Your task to perform on an android device: change the clock display to digital Image 0: 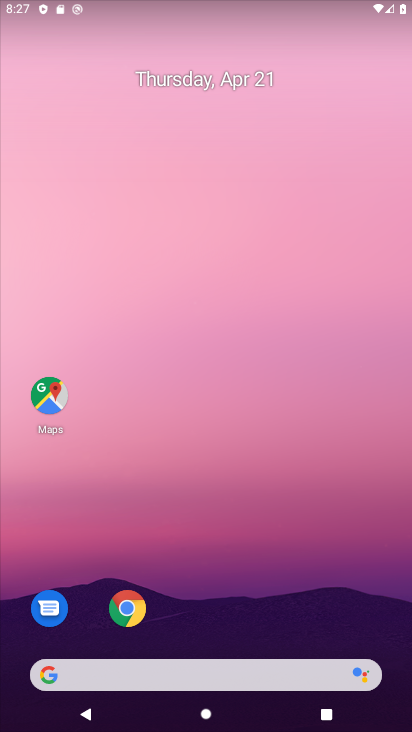
Step 0: drag from (255, 580) to (280, 241)
Your task to perform on an android device: change the clock display to digital Image 1: 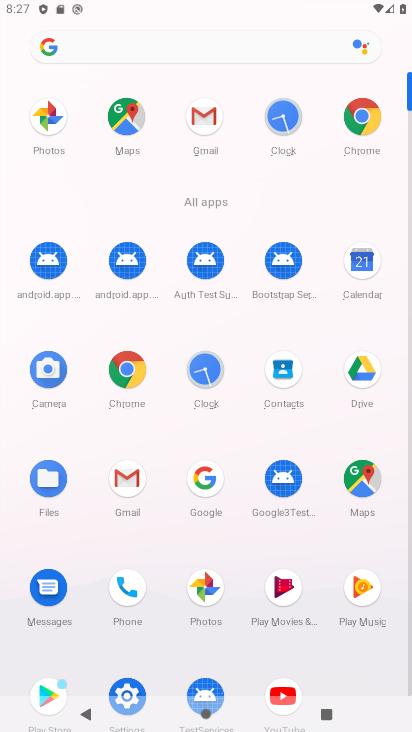
Step 1: click (198, 370)
Your task to perform on an android device: change the clock display to digital Image 2: 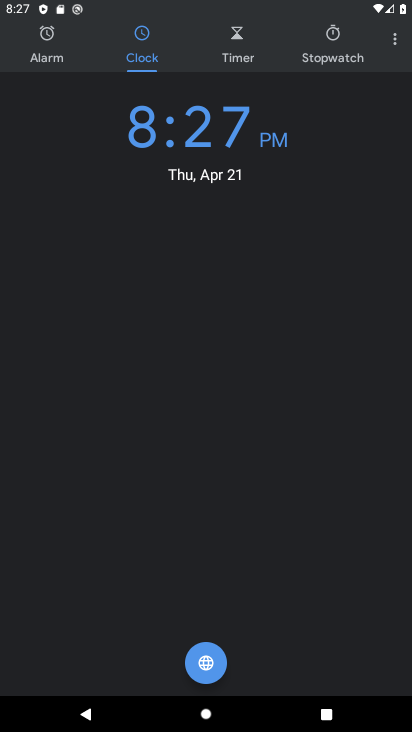
Step 2: click (403, 39)
Your task to perform on an android device: change the clock display to digital Image 3: 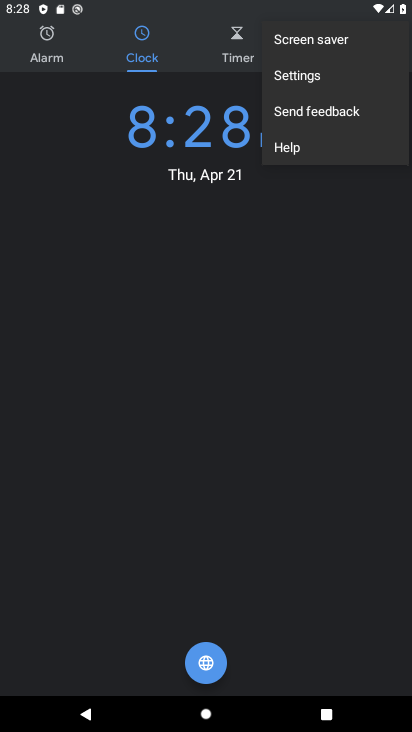
Step 3: click (369, 77)
Your task to perform on an android device: change the clock display to digital Image 4: 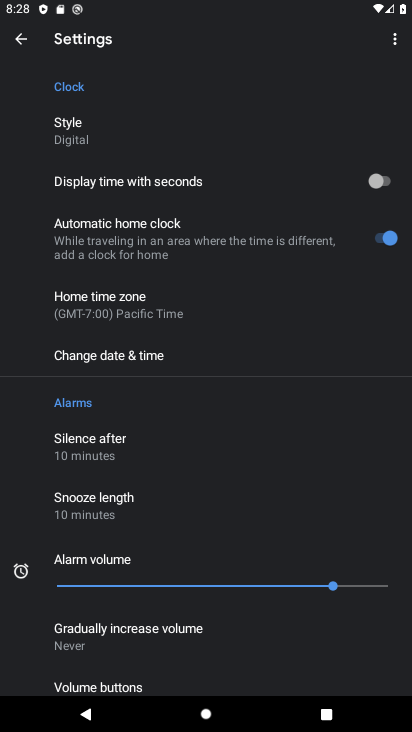
Step 4: click (151, 149)
Your task to perform on an android device: change the clock display to digital Image 5: 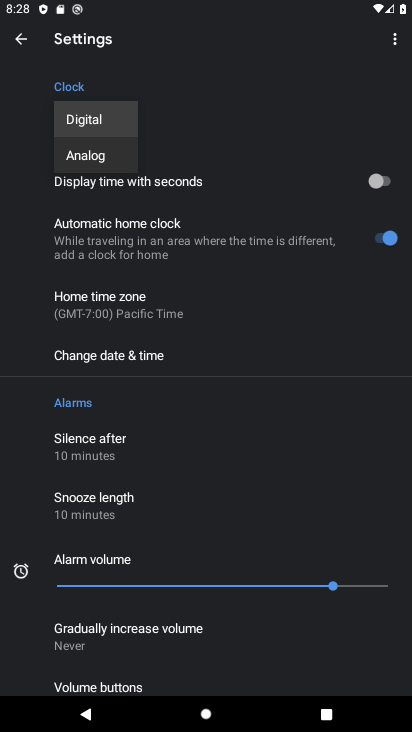
Step 5: click (118, 133)
Your task to perform on an android device: change the clock display to digital Image 6: 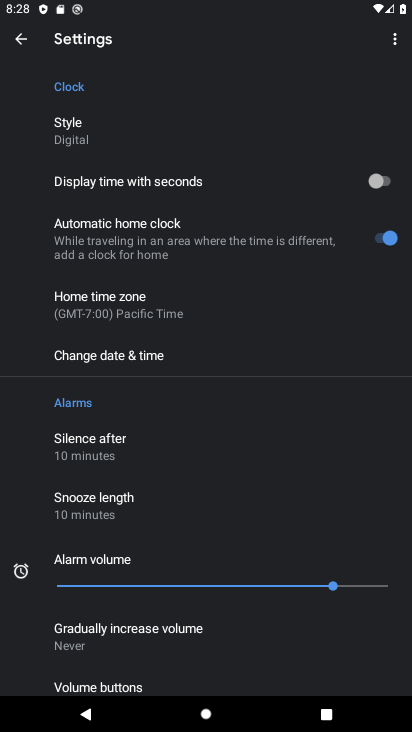
Step 6: task complete